Your task to perform on an android device: Open Reddit.com Image 0: 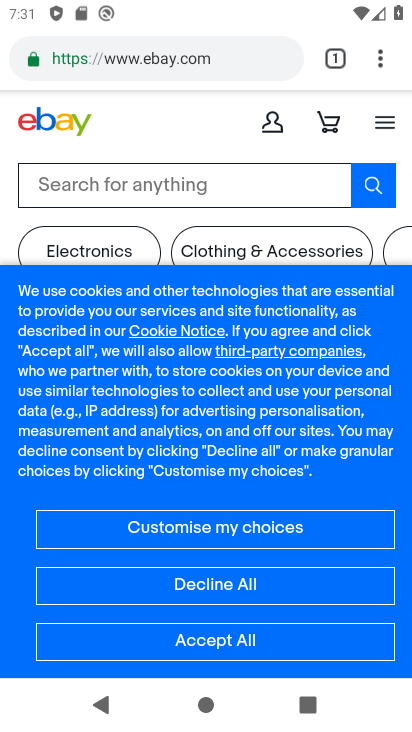
Step 0: click (231, 60)
Your task to perform on an android device: Open Reddit.com Image 1: 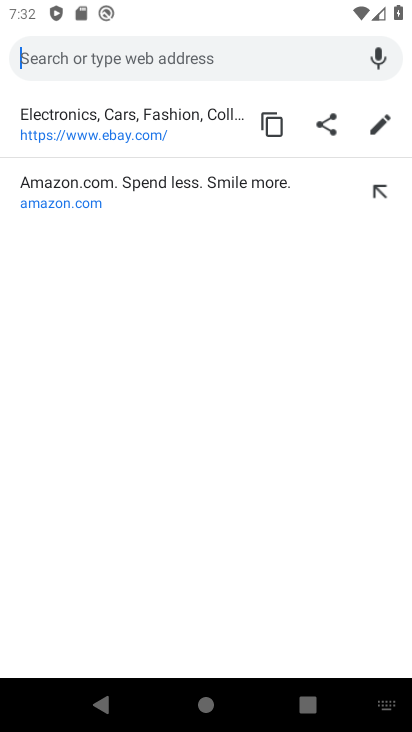
Step 1: type "reddit.com"
Your task to perform on an android device: Open Reddit.com Image 2: 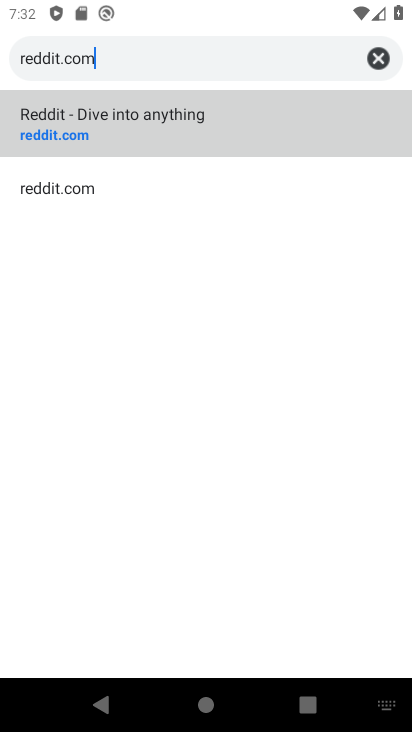
Step 2: click (163, 122)
Your task to perform on an android device: Open Reddit.com Image 3: 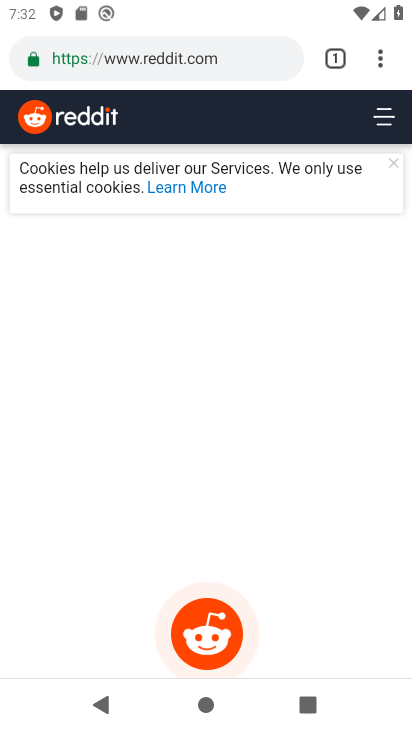
Step 3: task complete